Your task to perform on an android device: What's the weather going to be tomorrow? Image 0: 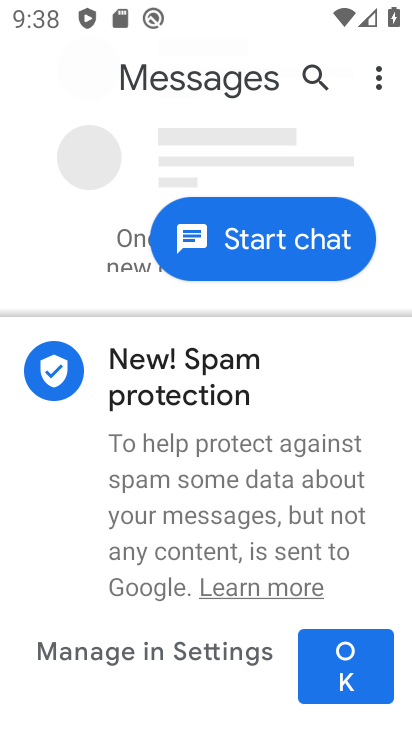
Step 0: press home button
Your task to perform on an android device: What's the weather going to be tomorrow? Image 1: 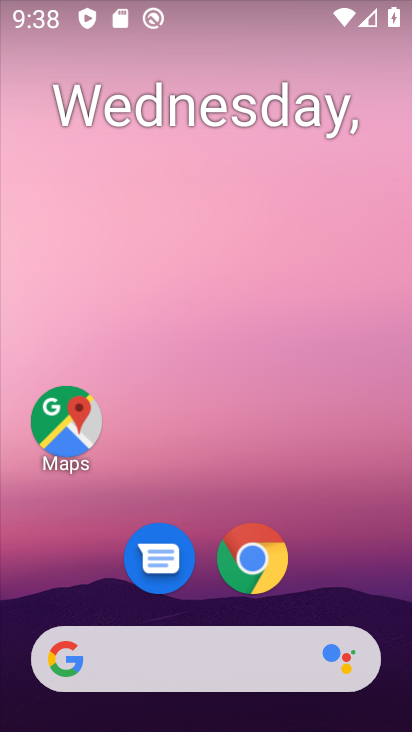
Step 1: click (123, 668)
Your task to perform on an android device: What's the weather going to be tomorrow? Image 2: 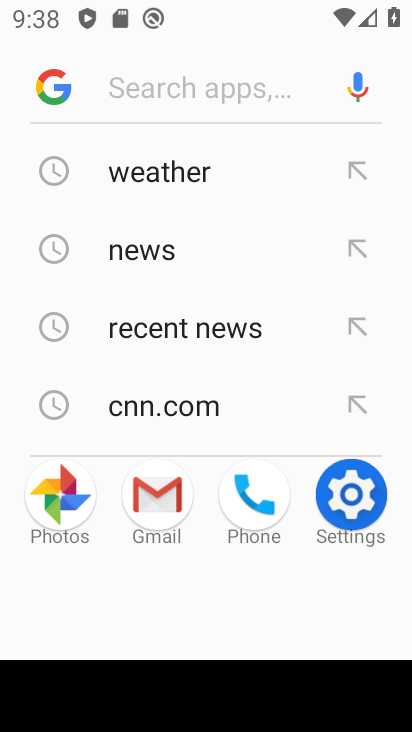
Step 2: click (164, 186)
Your task to perform on an android device: What's the weather going to be tomorrow? Image 3: 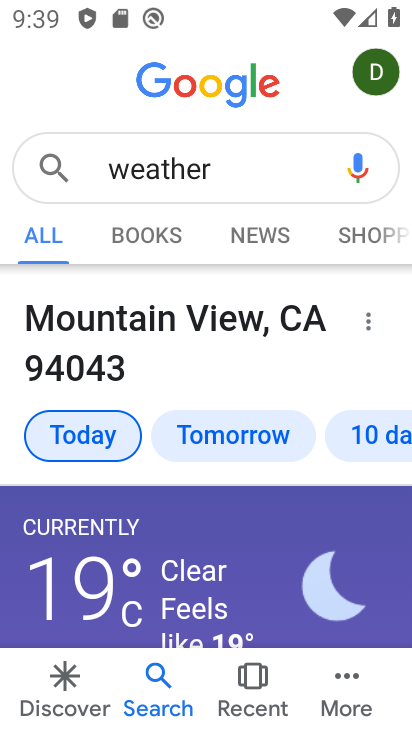
Step 3: click (205, 430)
Your task to perform on an android device: What's the weather going to be tomorrow? Image 4: 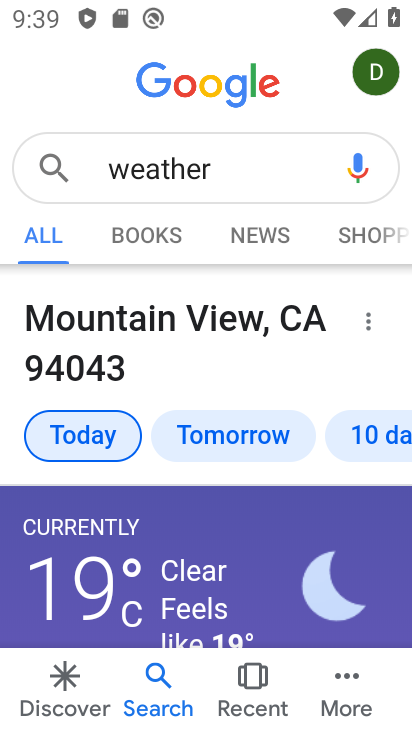
Step 4: task complete